Your task to perform on an android device: Go to accessibility settings Image 0: 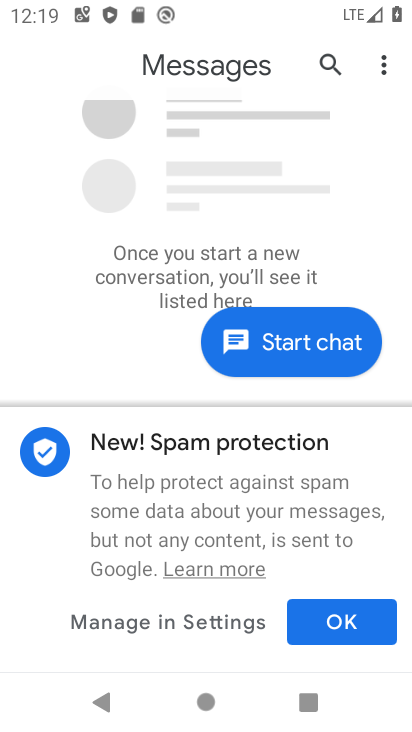
Step 0: press home button
Your task to perform on an android device: Go to accessibility settings Image 1: 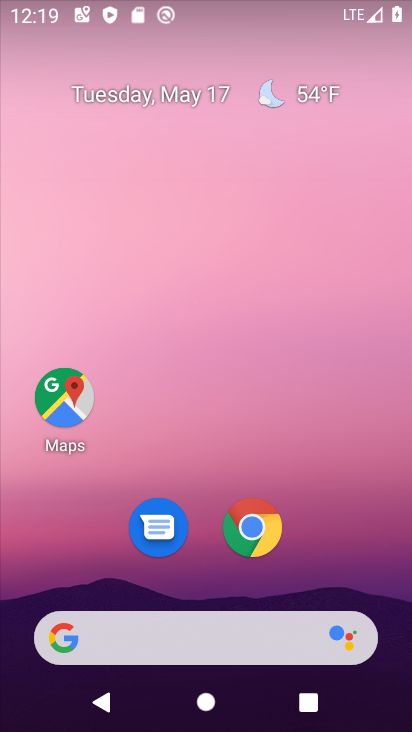
Step 1: drag from (265, 677) to (245, 83)
Your task to perform on an android device: Go to accessibility settings Image 2: 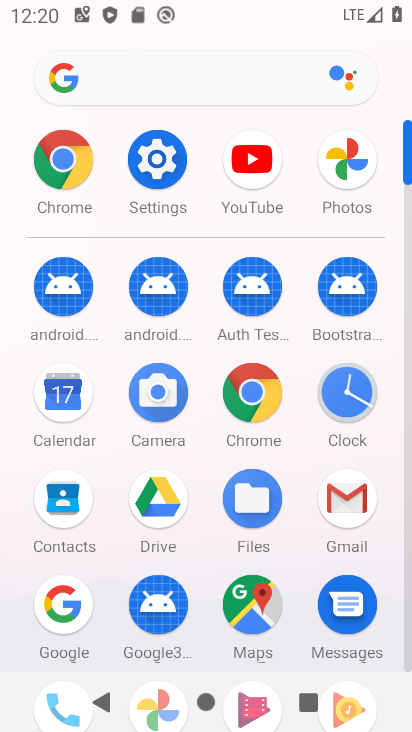
Step 2: click (164, 165)
Your task to perform on an android device: Go to accessibility settings Image 3: 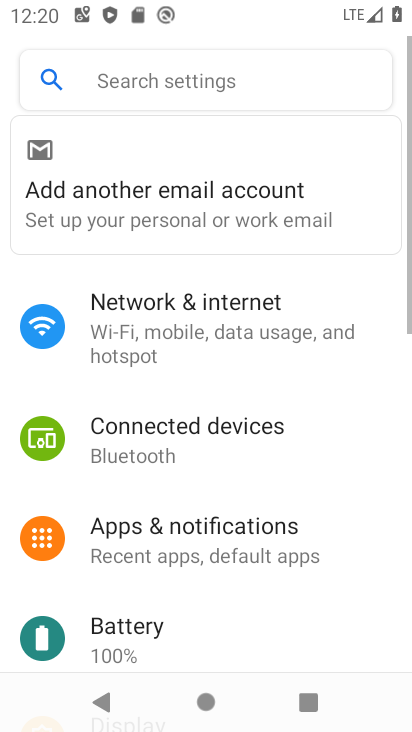
Step 3: click (190, 69)
Your task to perform on an android device: Go to accessibility settings Image 4: 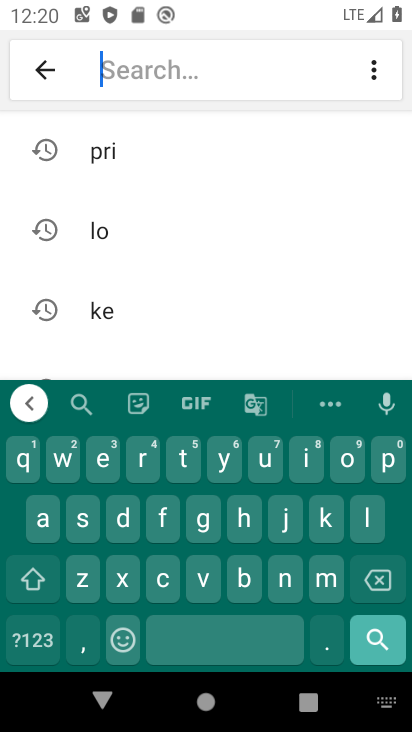
Step 4: click (37, 526)
Your task to perform on an android device: Go to accessibility settings Image 5: 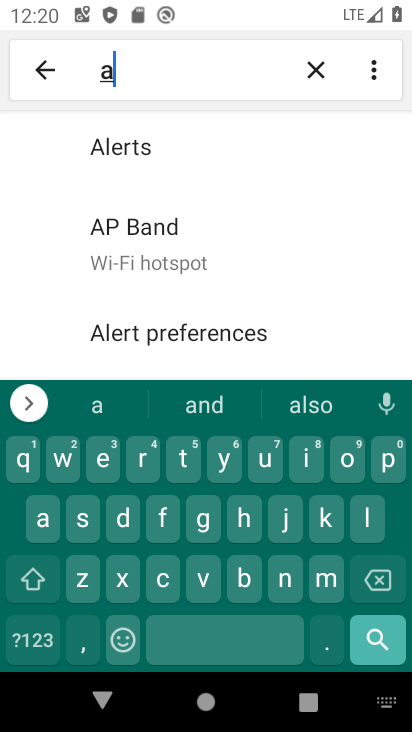
Step 5: click (169, 584)
Your task to perform on an android device: Go to accessibility settings Image 6: 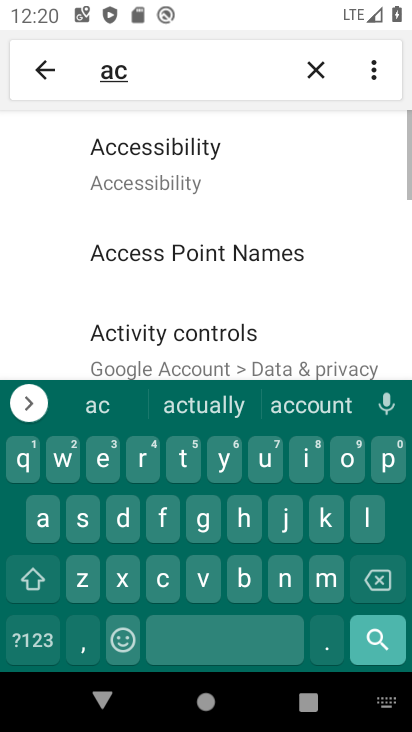
Step 6: click (164, 155)
Your task to perform on an android device: Go to accessibility settings Image 7: 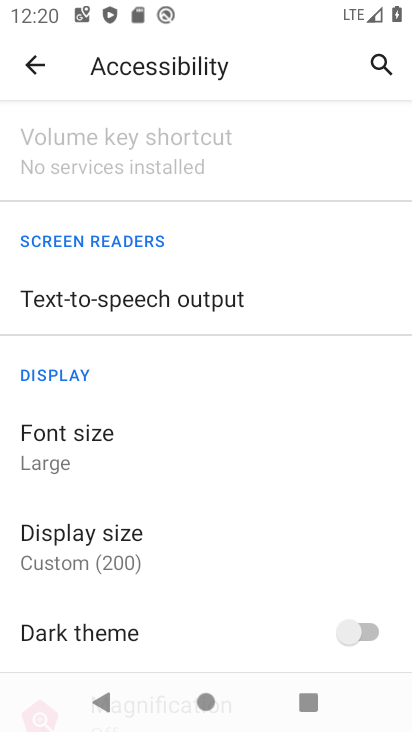
Step 7: task complete